Your task to perform on an android device: What's the weather going to be tomorrow? Image 0: 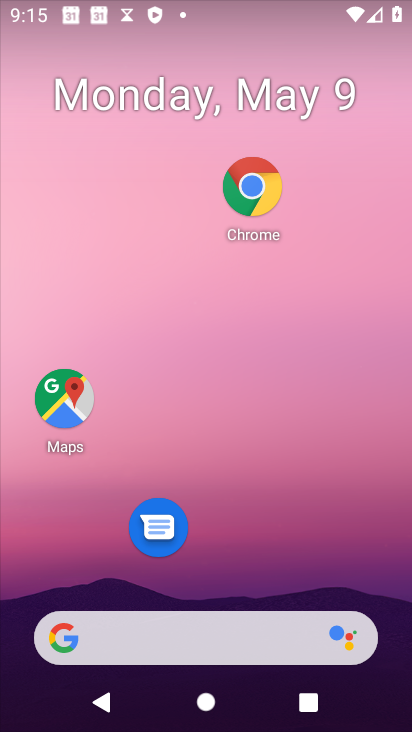
Step 0: press home button
Your task to perform on an android device: What's the weather going to be tomorrow? Image 1: 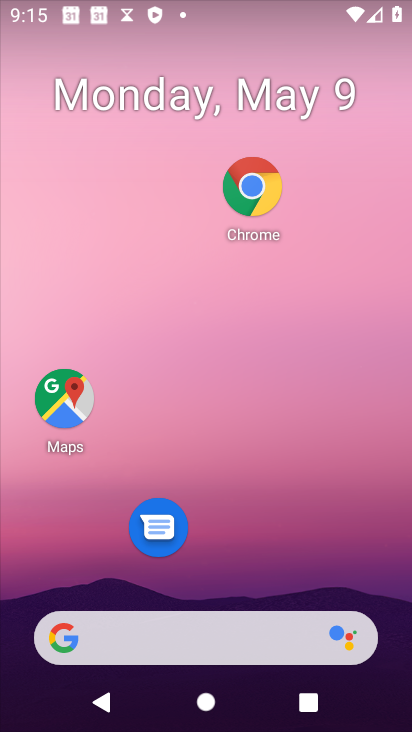
Step 1: press home button
Your task to perform on an android device: What's the weather going to be tomorrow? Image 2: 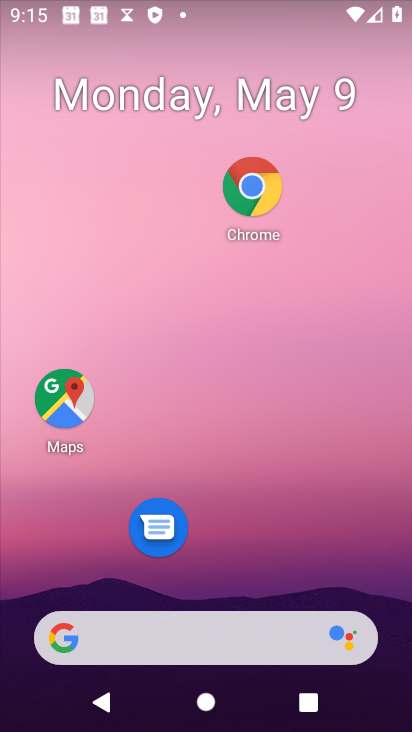
Step 2: drag from (211, 580) to (241, 348)
Your task to perform on an android device: What's the weather going to be tomorrow? Image 3: 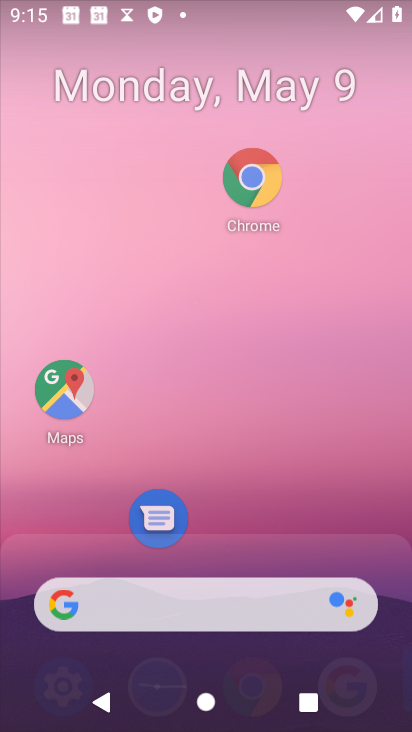
Step 3: drag from (268, 67) to (281, 2)
Your task to perform on an android device: What's the weather going to be tomorrow? Image 4: 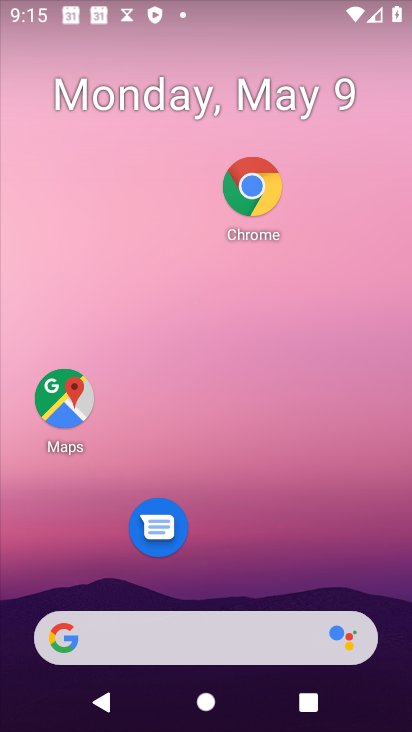
Step 4: drag from (206, 583) to (248, 14)
Your task to perform on an android device: What's the weather going to be tomorrow? Image 5: 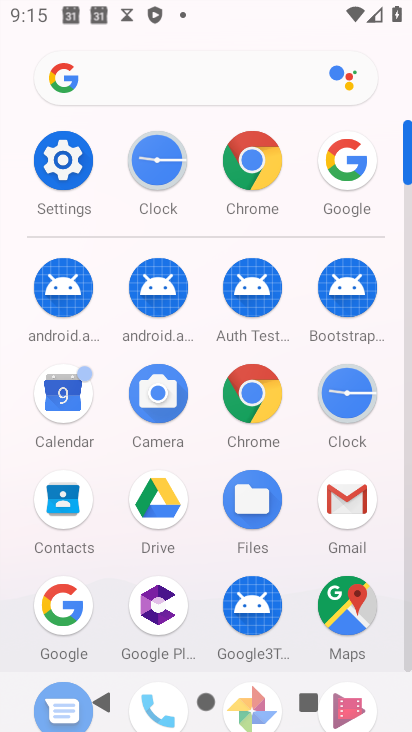
Step 5: click (65, 599)
Your task to perform on an android device: What's the weather going to be tomorrow? Image 6: 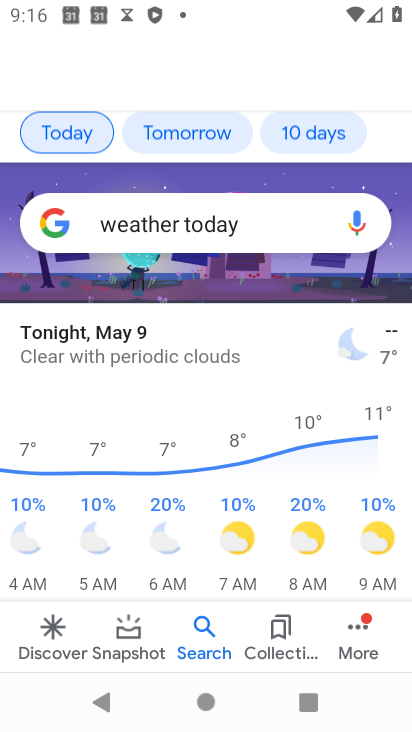
Step 6: click (191, 131)
Your task to perform on an android device: What's the weather going to be tomorrow? Image 7: 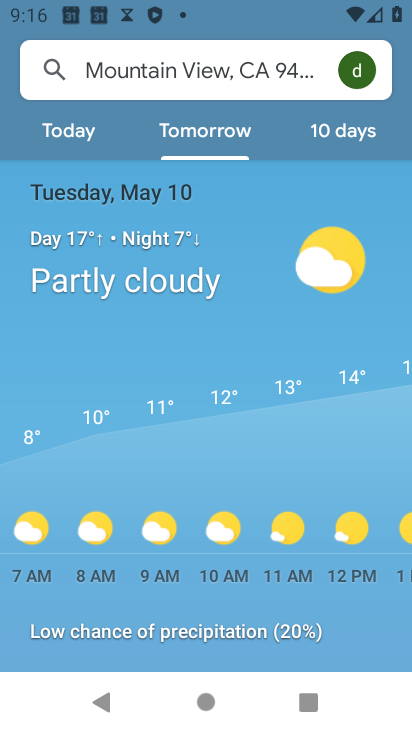
Step 7: task complete